Your task to perform on an android device: turn off smart reply in the gmail app Image 0: 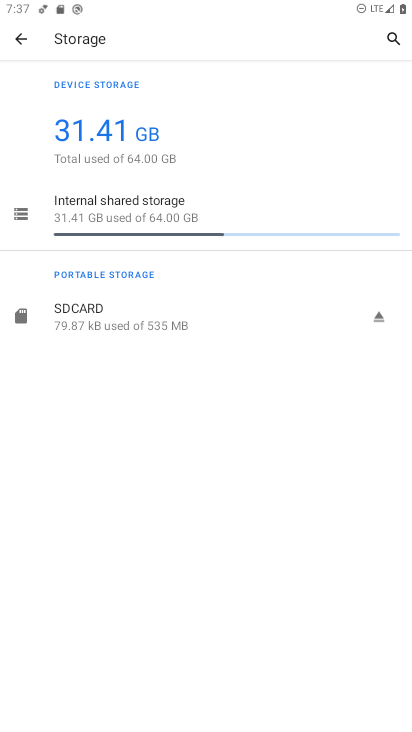
Step 0: press home button
Your task to perform on an android device: turn off smart reply in the gmail app Image 1: 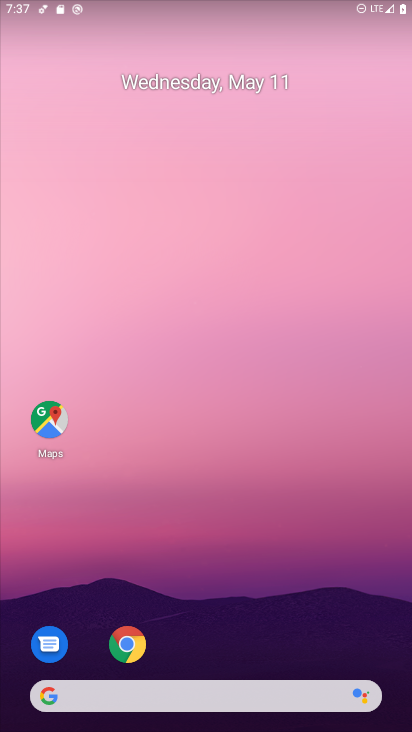
Step 1: drag from (232, 553) to (179, 53)
Your task to perform on an android device: turn off smart reply in the gmail app Image 2: 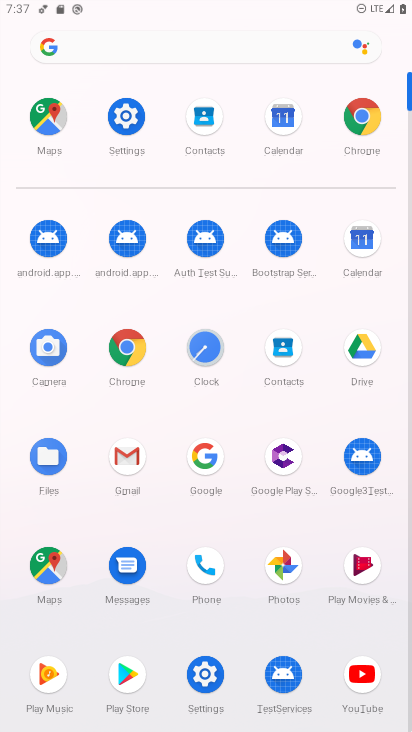
Step 2: click (119, 456)
Your task to perform on an android device: turn off smart reply in the gmail app Image 3: 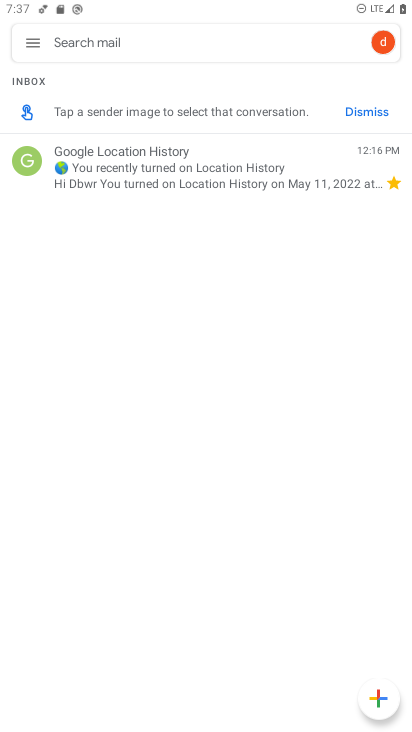
Step 3: click (29, 42)
Your task to perform on an android device: turn off smart reply in the gmail app Image 4: 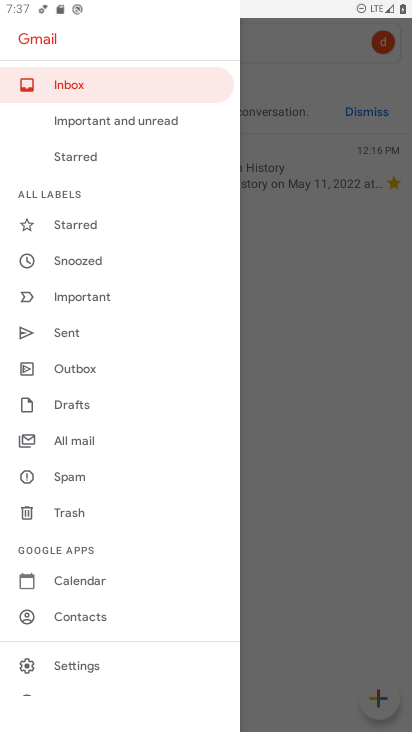
Step 4: click (76, 662)
Your task to perform on an android device: turn off smart reply in the gmail app Image 5: 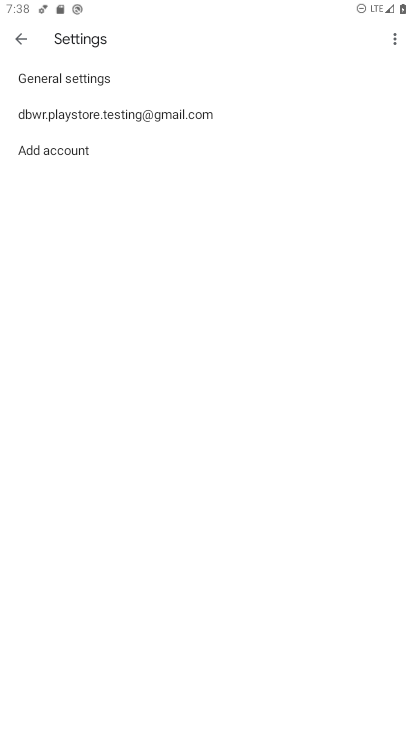
Step 5: click (55, 80)
Your task to perform on an android device: turn off smart reply in the gmail app Image 6: 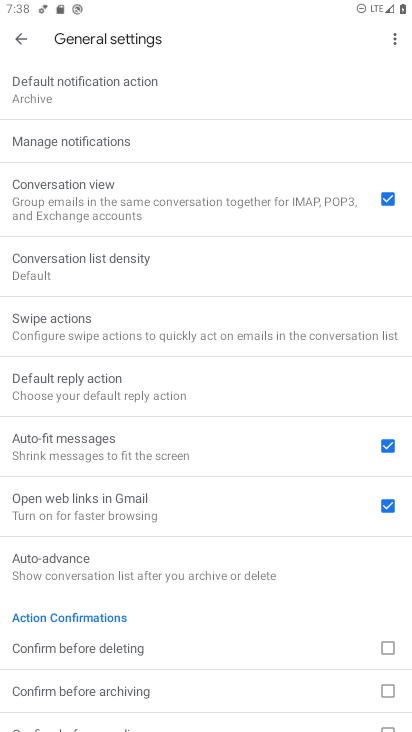
Step 6: drag from (231, 602) to (212, 156)
Your task to perform on an android device: turn off smart reply in the gmail app Image 7: 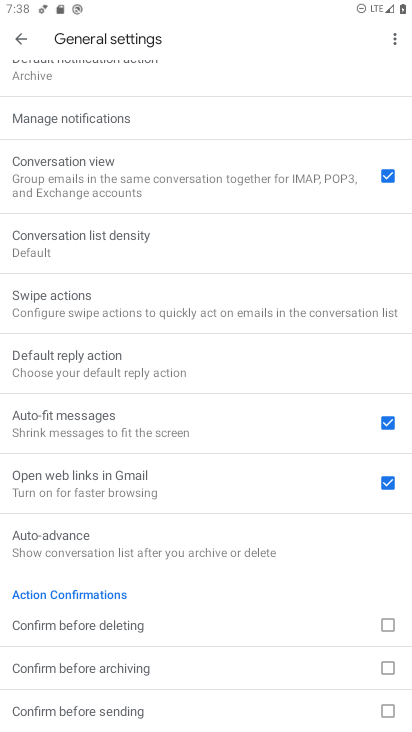
Step 7: drag from (251, 511) to (214, 232)
Your task to perform on an android device: turn off smart reply in the gmail app Image 8: 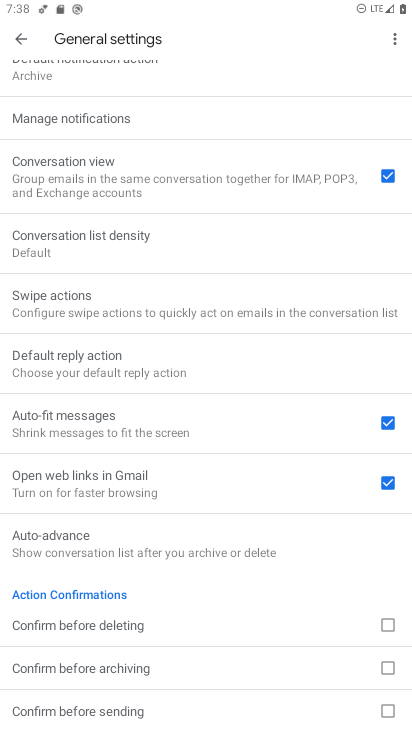
Step 8: click (24, 37)
Your task to perform on an android device: turn off smart reply in the gmail app Image 9: 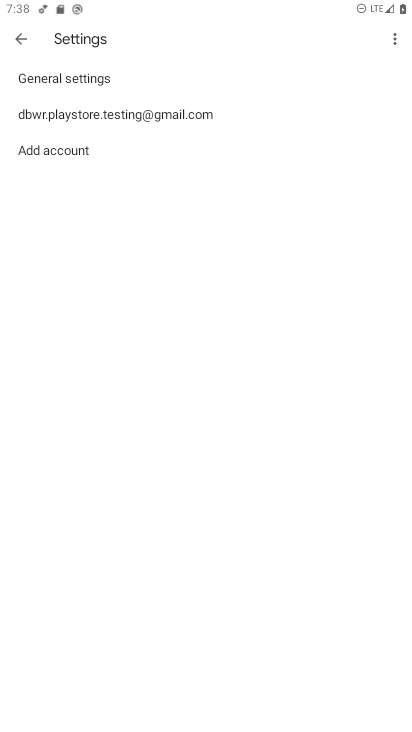
Step 9: click (109, 113)
Your task to perform on an android device: turn off smart reply in the gmail app Image 10: 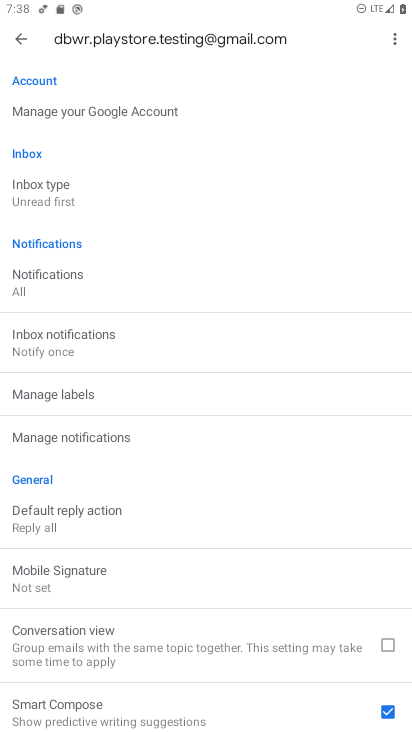
Step 10: drag from (225, 477) to (207, 146)
Your task to perform on an android device: turn off smart reply in the gmail app Image 11: 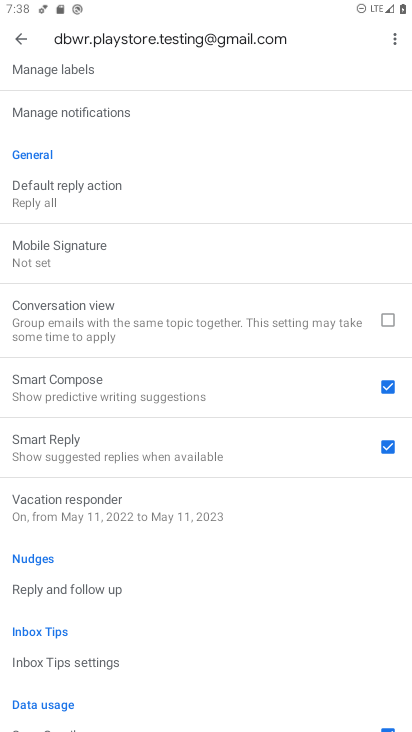
Step 11: click (391, 448)
Your task to perform on an android device: turn off smart reply in the gmail app Image 12: 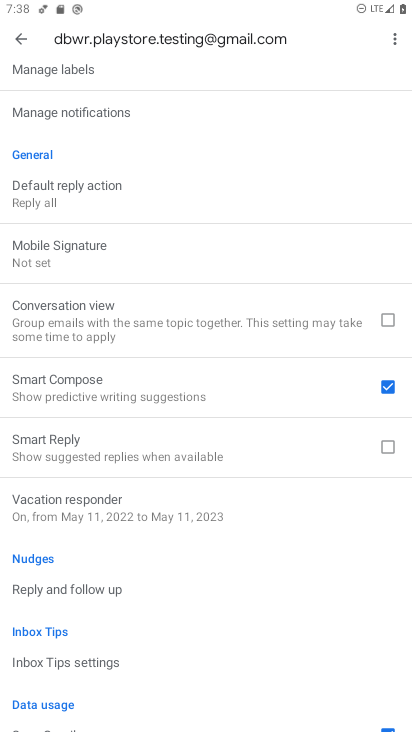
Step 12: task complete